Your task to perform on an android device: turn on wifi Image 0: 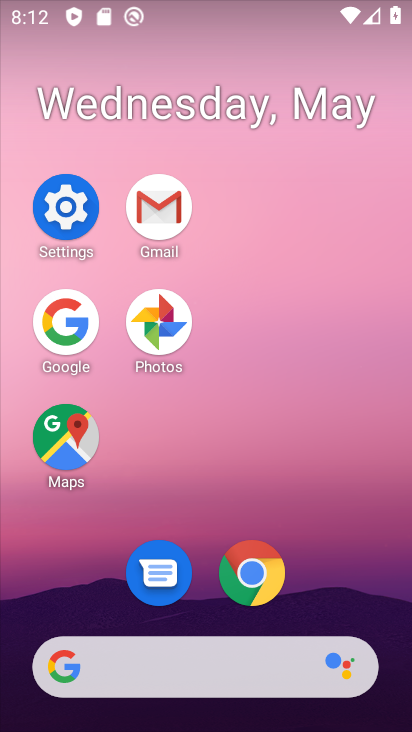
Step 0: click (48, 220)
Your task to perform on an android device: turn on wifi Image 1: 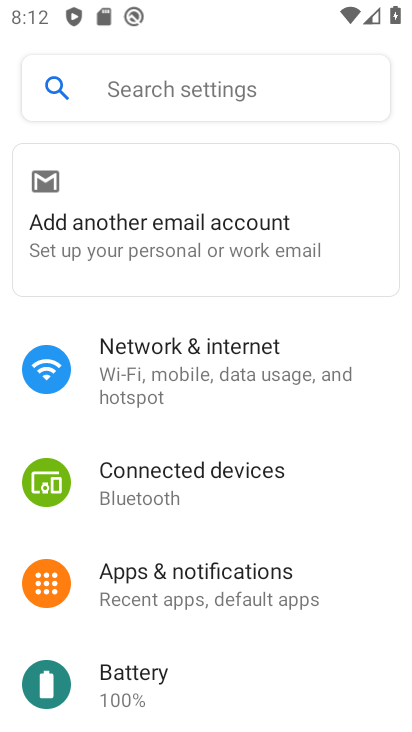
Step 1: click (213, 398)
Your task to perform on an android device: turn on wifi Image 2: 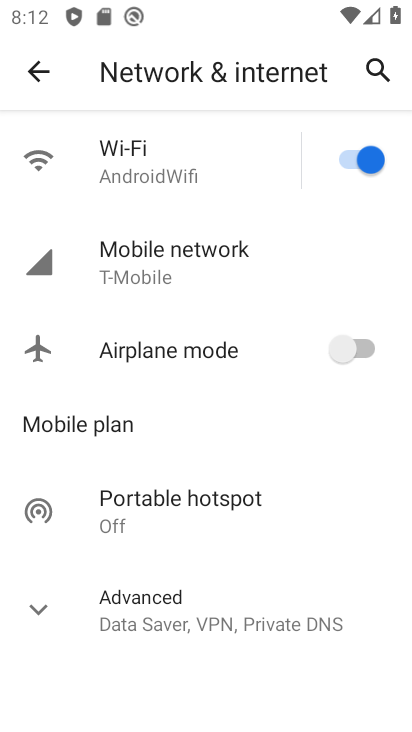
Step 2: task complete